Your task to perform on an android device: Go to Google maps Image 0: 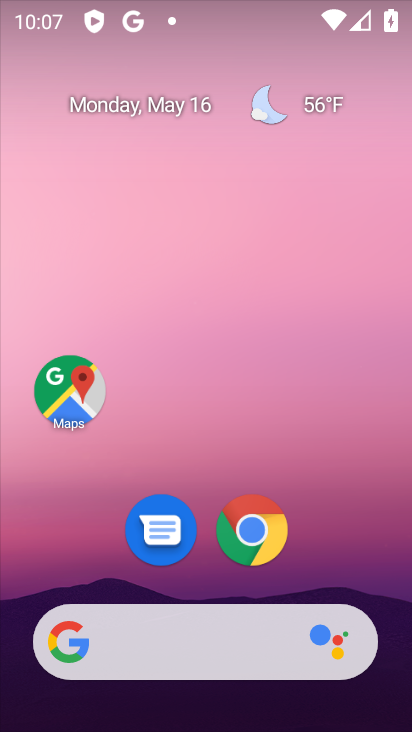
Step 0: drag from (374, 570) to (341, 207)
Your task to perform on an android device: Go to Google maps Image 1: 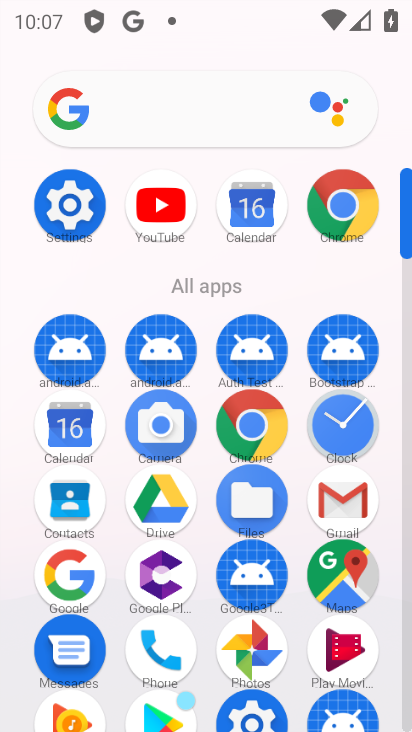
Step 1: click (349, 570)
Your task to perform on an android device: Go to Google maps Image 2: 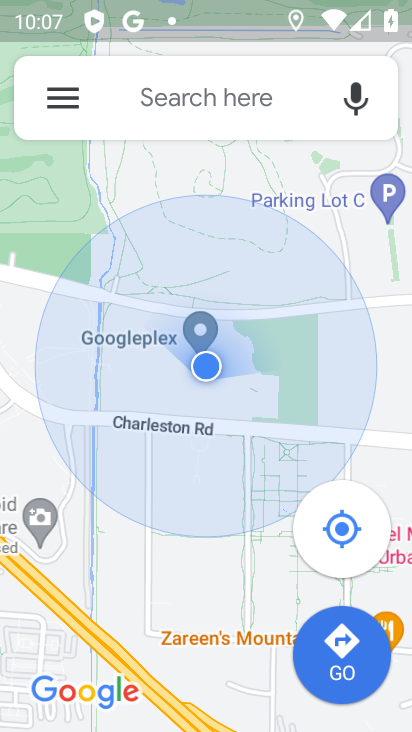
Step 2: task complete